Your task to perform on an android device: Open Wikipedia Image 0: 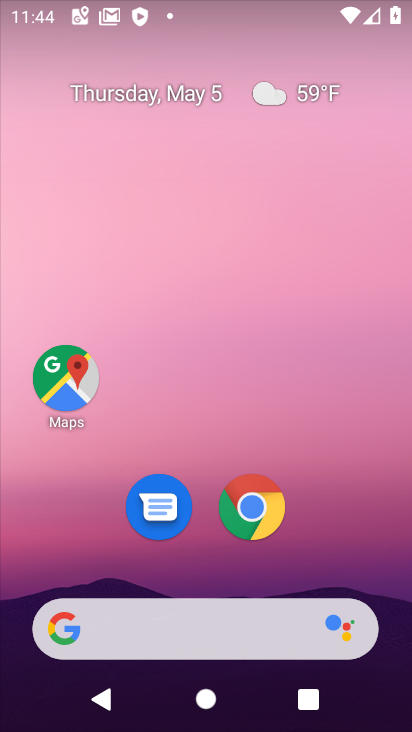
Step 0: click (261, 516)
Your task to perform on an android device: Open Wikipedia Image 1: 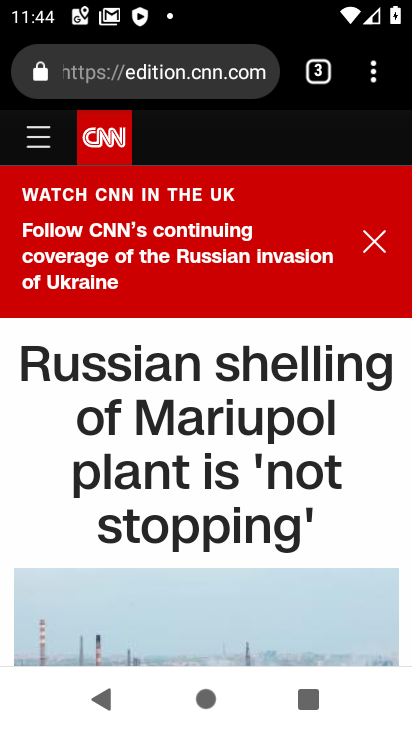
Step 1: click (372, 70)
Your task to perform on an android device: Open Wikipedia Image 2: 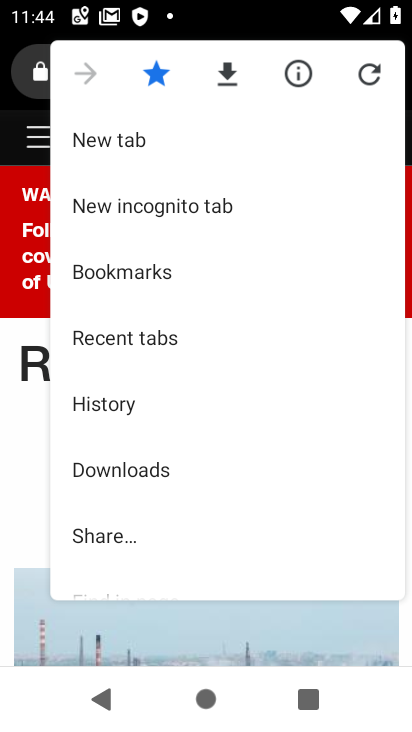
Step 2: click (119, 139)
Your task to perform on an android device: Open Wikipedia Image 3: 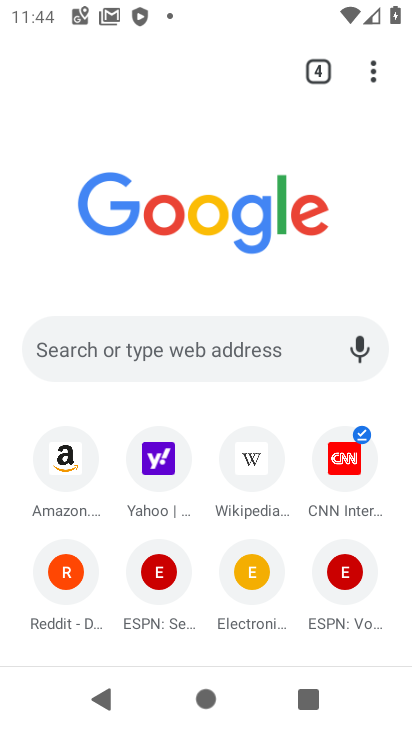
Step 3: click (248, 471)
Your task to perform on an android device: Open Wikipedia Image 4: 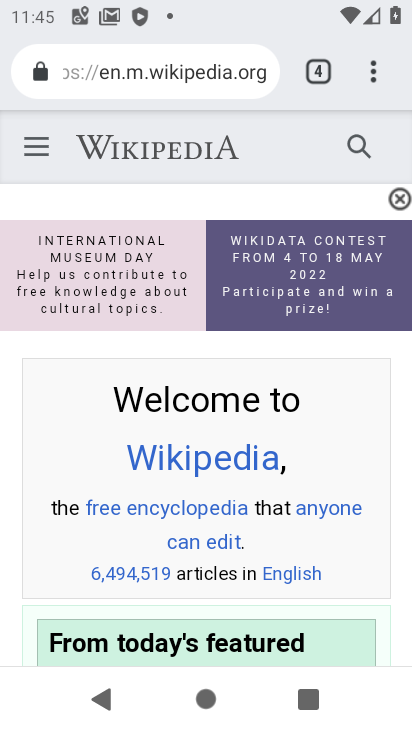
Step 4: task complete